Your task to perform on an android device: add a contact in the contacts app Image 0: 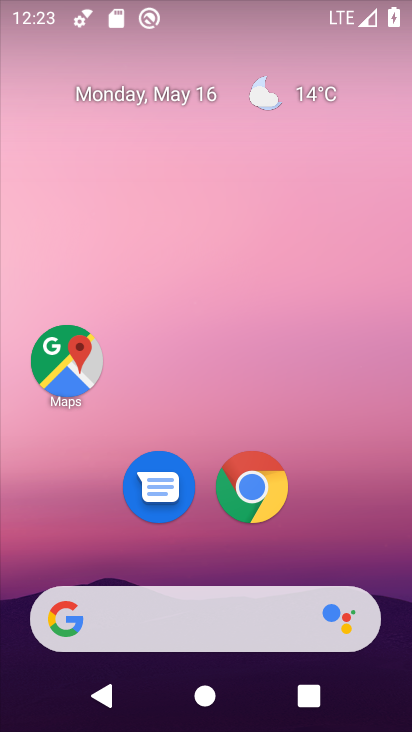
Step 0: drag from (115, 571) to (205, 26)
Your task to perform on an android device: add a contact in the contacts app Image 1: 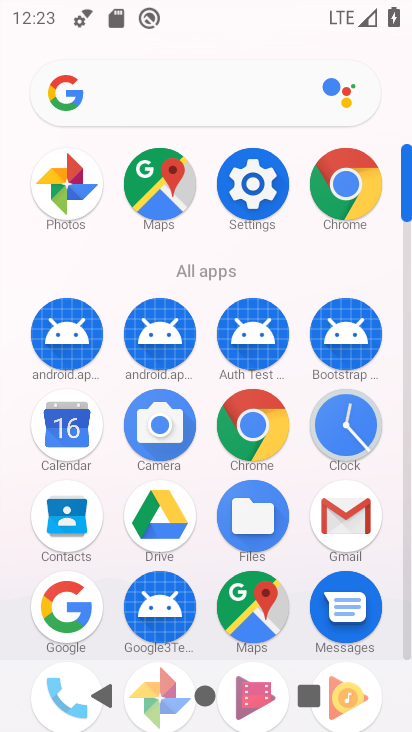
Step 1: click (61, 514)
Your task to perform on an android device: add a contact in the contacts app Image 2: 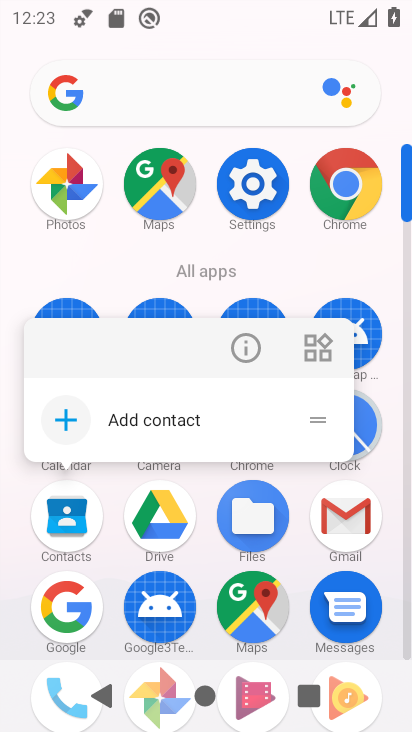
Step 2: click (82, 521)
Your task to perform on an android device: add a contact in the contacts app Image 3: 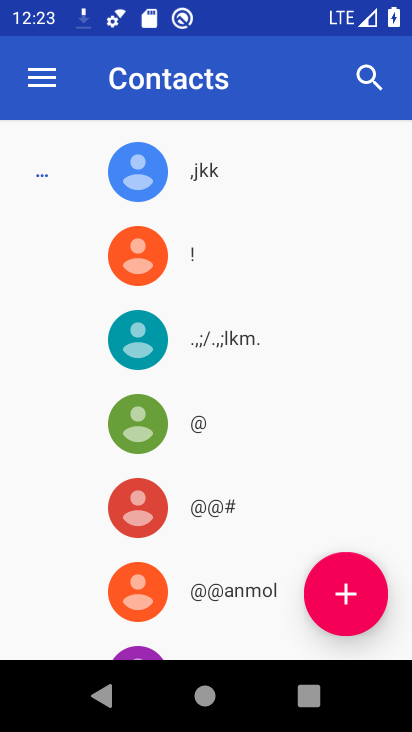
Step 3: click (355, 591)
Your task to perform on an android device: add a contact in the contacts app Image 4: 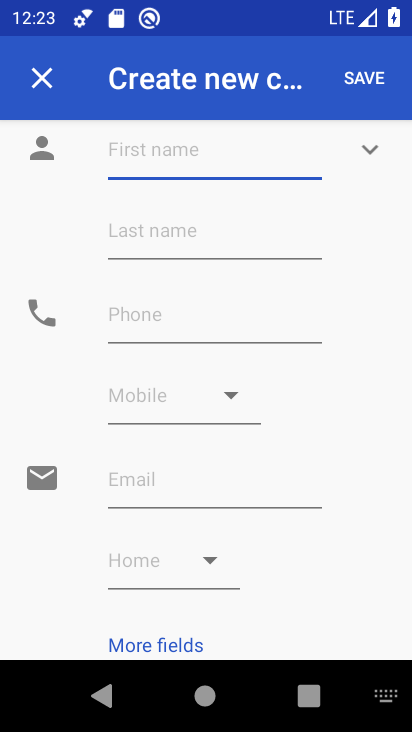
Step 4: type ""
Your task to perform on an android device: add a contact in the contacts app Image 5: 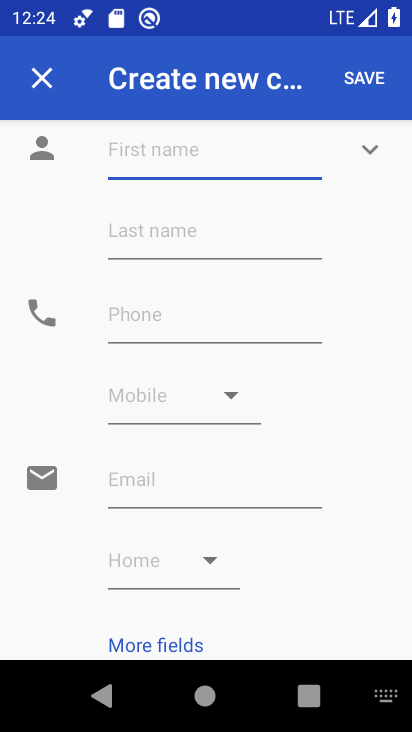
Step 5: type "HSWHKWSRW"
Your task to perform on an android device: add a contact in the contacts app Image 6: 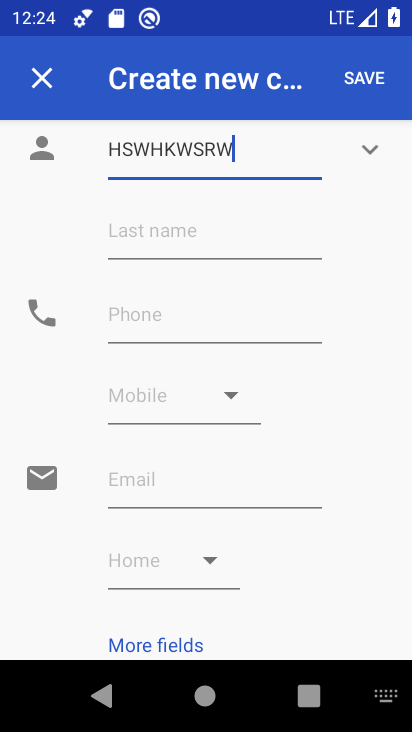
Step 6: click (138, 337)
Your task to perform on an android device: add a contact in the contacts app Image 7: 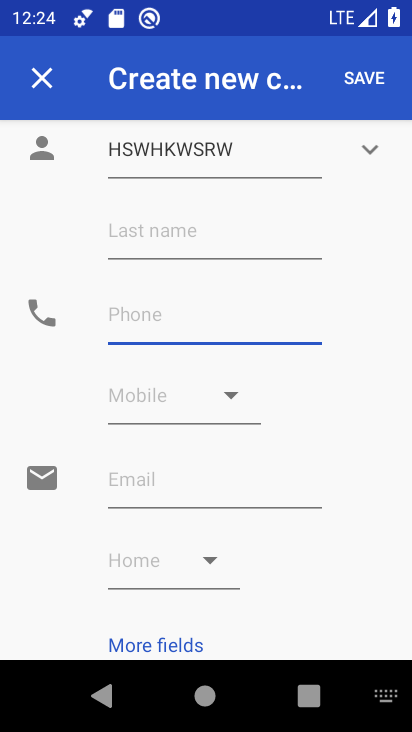
Step 7: type "51112135301920"
Your task to perform on an android device: add a contact in the contacts app Image 8: 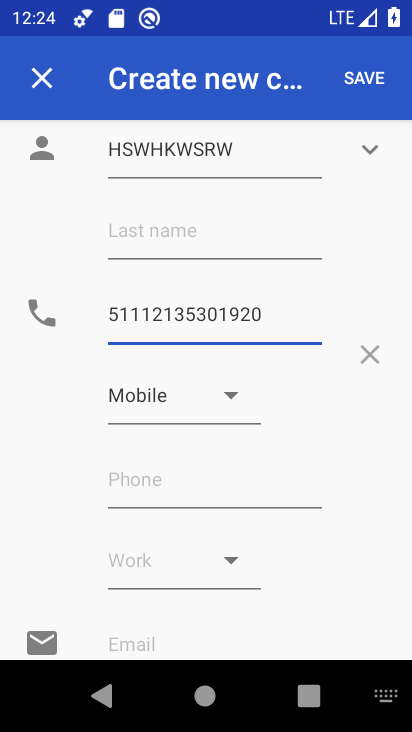
Step 8: click (377, 91)
Your task to perform on an android device: add a contact in the contacts app Image 9: 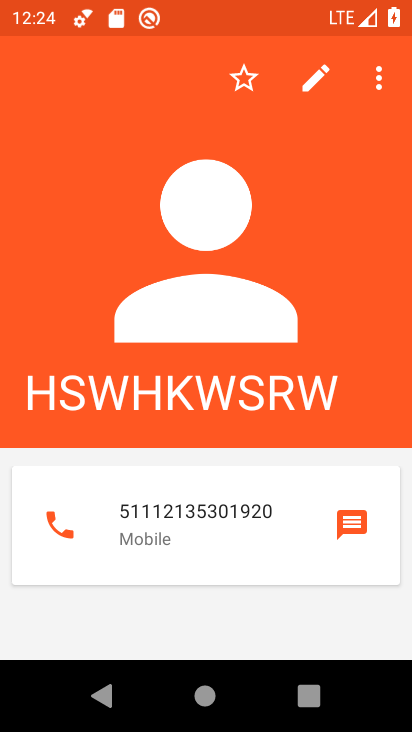
Step 9: task complete